Your task to perform on an android device: View the shopping cart on walmart.com. Search for razer nari on walmart.com, select the first entry, add it to the cart, then select checkout. Image 0: 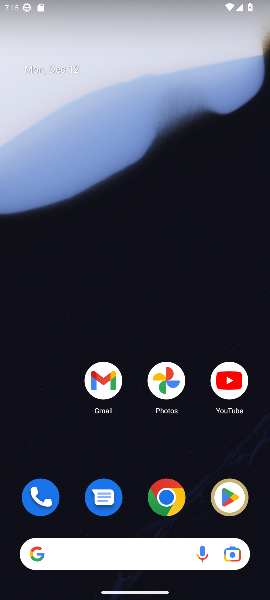
Step 0: press home button
Your task to perform on an android device: View the shopping cart on walmart.com. Search for razer nari on walmart.com, select the first entry, add it to the cart, then select checkout. Image 1: 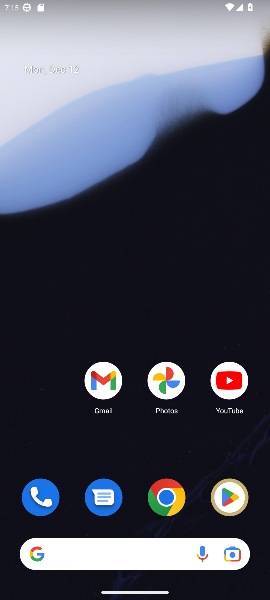
Step 1: drag from (59, 444) to (62, 36)
Your task to perform on an android device: View the shopping cart on walmart.com. Search for razer nari on walmart.com, select the first entry, add it to the cart, then select checkout. Image 2: 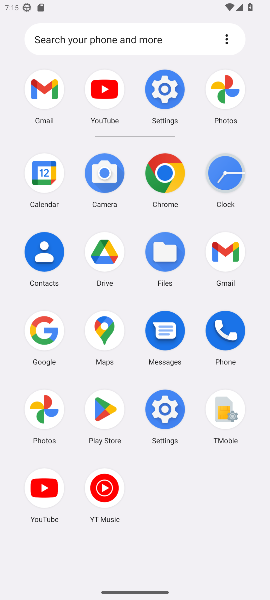
Step 2: click (34, 324)
Your task to perform on an android device: View the shopping cart on walmart.com. Search for razer nari on walmart.com, select the first entry, add it to the cart, then select checkout. Image 3: 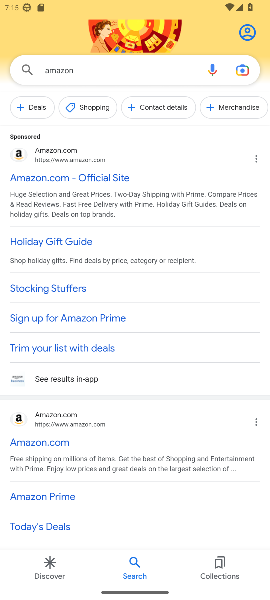
Step 3: click (90, 69)
Your task to perform on an android device: View the shopping cart on walmart.com. Search for razer nari on walmart.com, select the first entry, add it to the cart, then select checkout. Image 4: 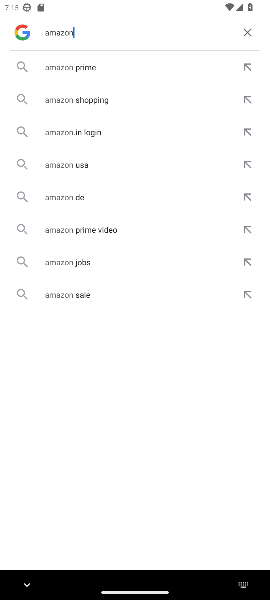
Step 4: click (248, 30)
Your task to perform on an android device: View the shopping cart on walmart.com. Search for razer nari on walmart.com, select the first entry, add it to the cart, then select checkout. Image 5: 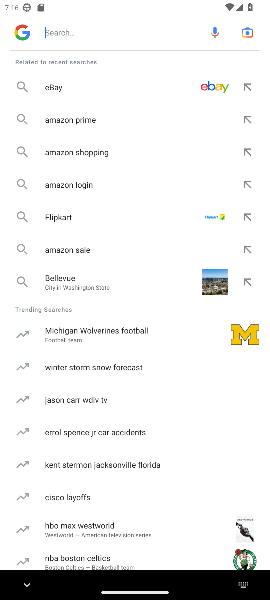
Step 5: type "walmart.com"
Your task to perform on an android device: View the shopping cart on walmart.com. Search for razer nari on walmart.com, select the first entry, add it to the cart, then select checkout. Image 6: 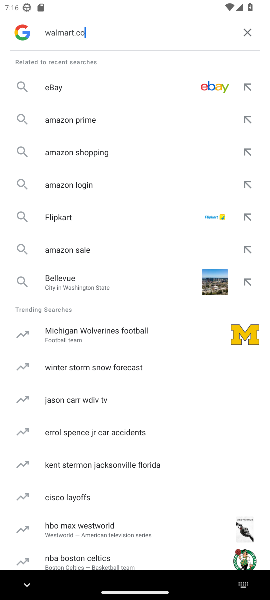
Step 6: press enter
Your task to perform on an android device: View the shopping cart on walmart.com. Search for razer nari on walmart.com, select the first entry, add it to the cart, then select checkout. Image 7: 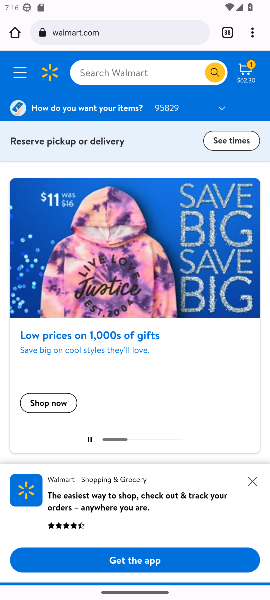
Step 7: click (245, 67)
Your task to perform on an android device: View the shopping cart on walmart.com. Search for razer nari on walmart.com, select the first entry, add it to the cart, then select checkout. Image 8: 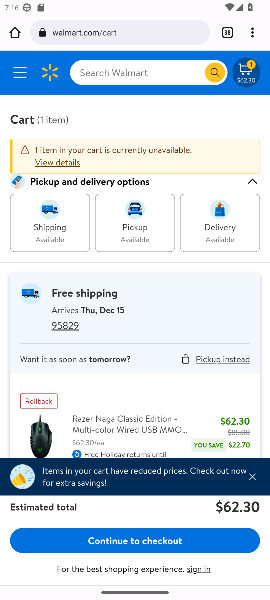
Step 8: click (109, 70)
Your task to perform on an android device: View the shopping cart on walmart.com. Search for razer nari on walmart.com, select the first entry, add it to the cart, then select checkout. Image 9: 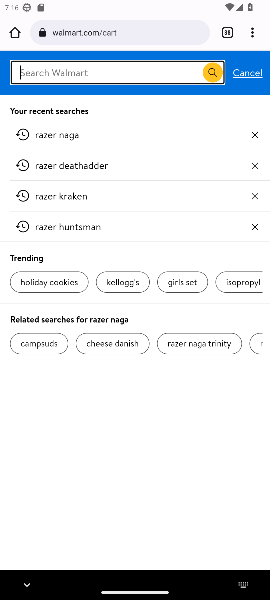
Step 9: type "razer nari"
Your task to perform on an android device: View the shopping cart on walmart.com. Search for razer nari on walmart.com, select the first entry, add it to the cart, then select checkout. Image 10: 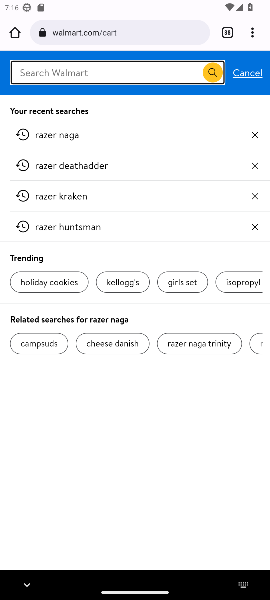
Step 10: press enter
Your task to perform on an android device: View the shopping cart on walmart.com. Search for razer nari on walmart.com, select the first entry, add it to the cart, then select checkout. Image 11: 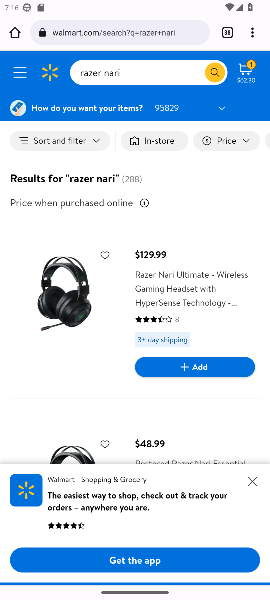
Step 11: click (191, 365)
Your task to perform on an android device: View the shopping cart on walmart.com. Search for razer nari on walmart.com, select the first entry, add it to the cart, then select checkout. Image 12: 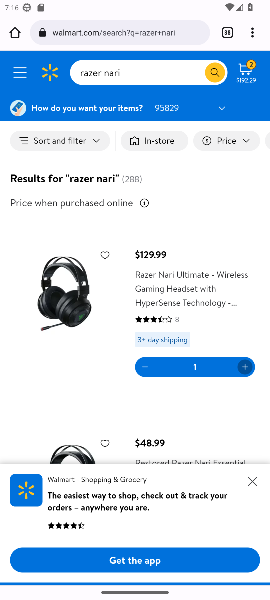
Step 12: click (189, 367)
Your task to perform on an android device: View the shopping cart on walmart.com. Search for razer nari on walmart.com, select the first entry, add it to the cart, then select checkout. Image 13: 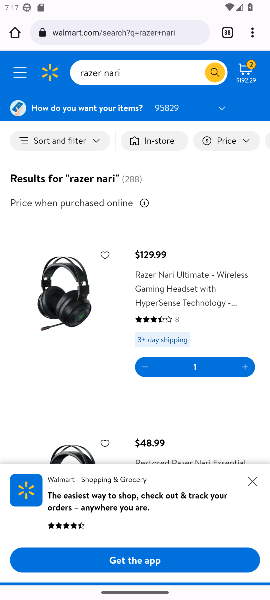
Step 13: task complete